Your task to perform on an android device: change notifications settings Image 0: 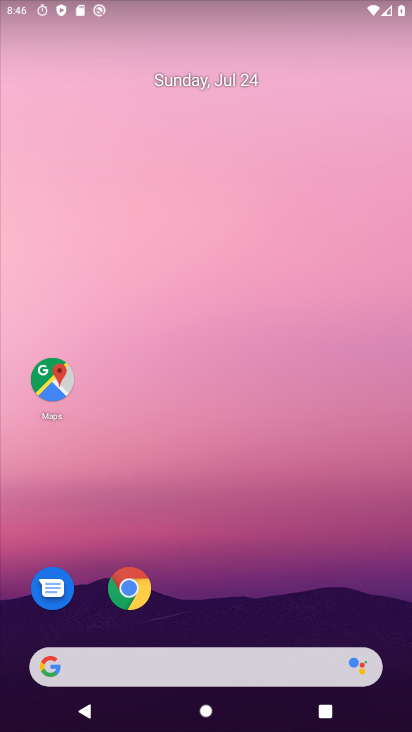
Step 0: drag from (401, 686) to (289, 27)
Your task to perform on an android device: change notifications settings Image 1: 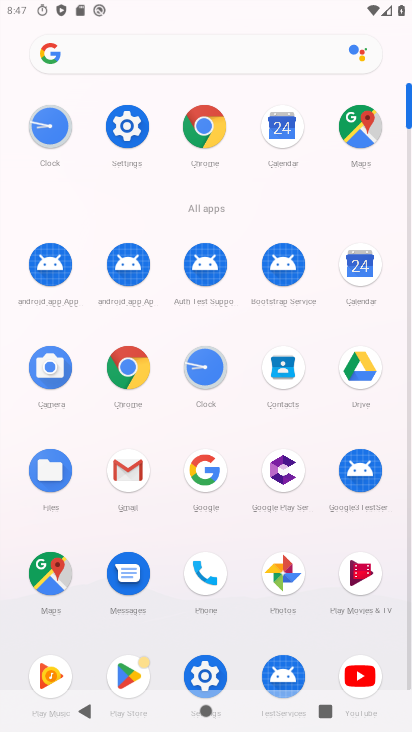
Step 1: click (126, 122)
Your task to perform on an android device: change notifications settings Image 2: 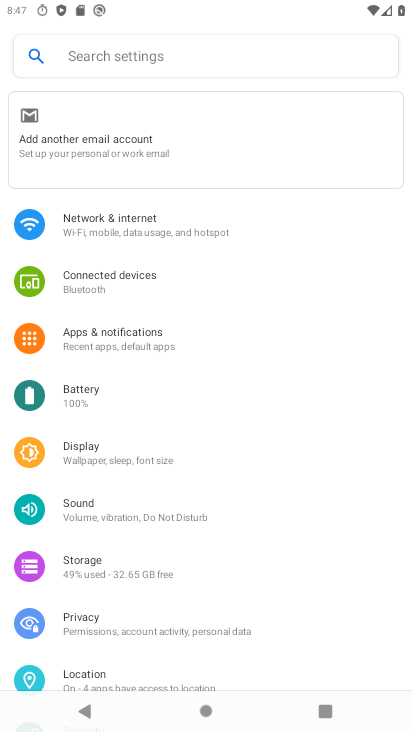
Step 2: click (111, 331)
Your task to perform on an android device: change notifications settings Image 3: 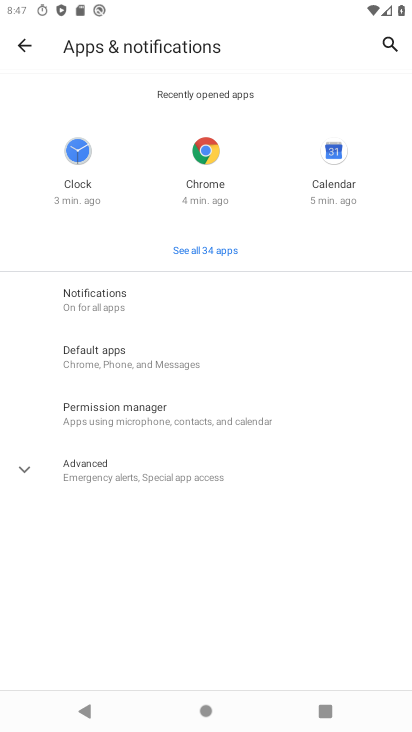
Step 3: click (77, 291)
Your task to perform on an android device: change notifications settings Image 4: 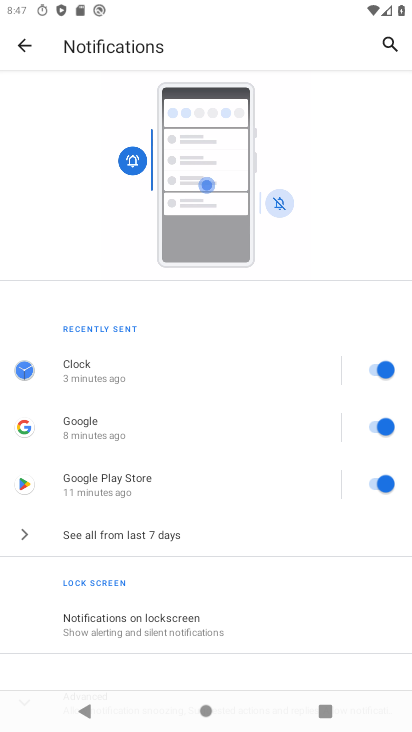
Step 4: click (376, 371)
Your task to perform on an android device: change notifications settings Image 5: 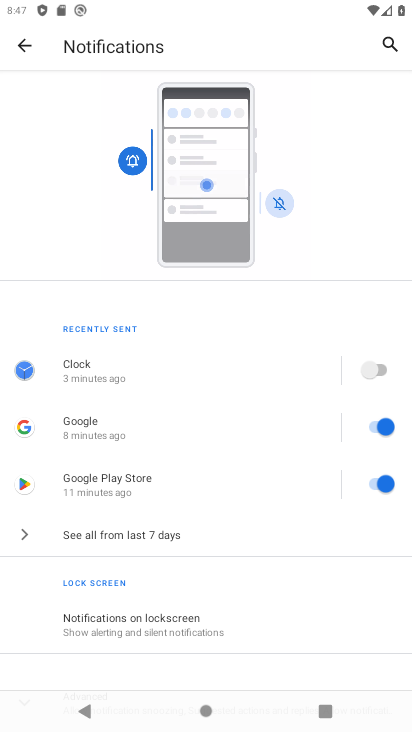
Step 5: click (369, 424)
Your task to perform on an android device: change notifications settings Image 6: 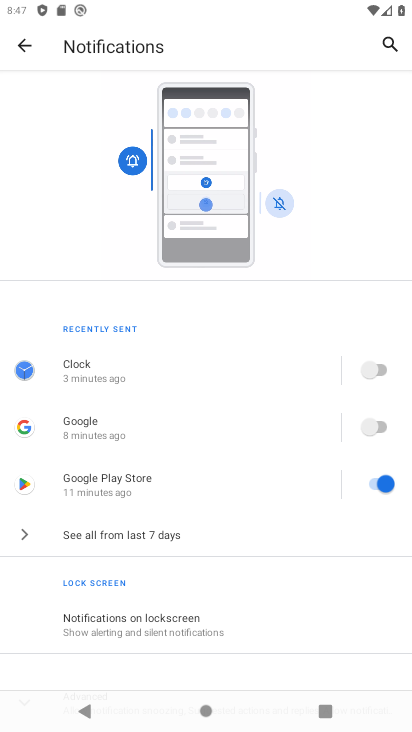
Step 6: click (375, 483)
Your task to perform on an android device: change notifications settings Image 7: 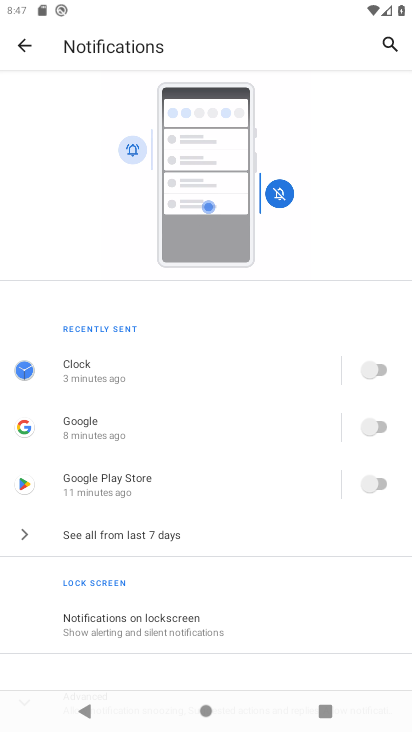
Step 7: task complete